Your task to perform on an android device: show emergency info Image 0: 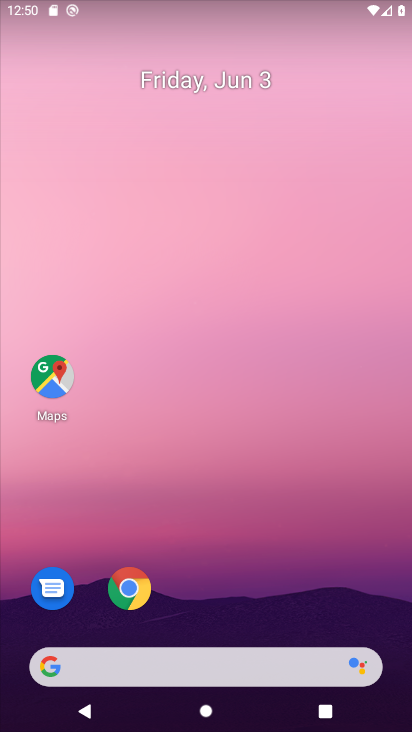
Step 0: drag from (257, 599) to (223, 163)
Your task to perform on an android device: show emergency info Image 1: 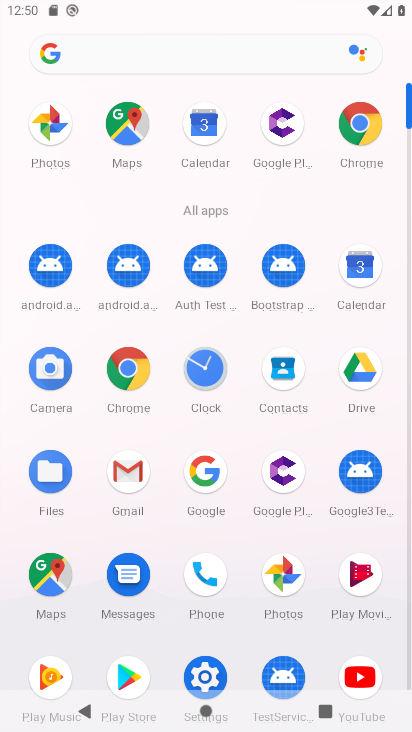
Step 1: click (201, 668)
Your task to perform on an android device: show emergency info Image 2: 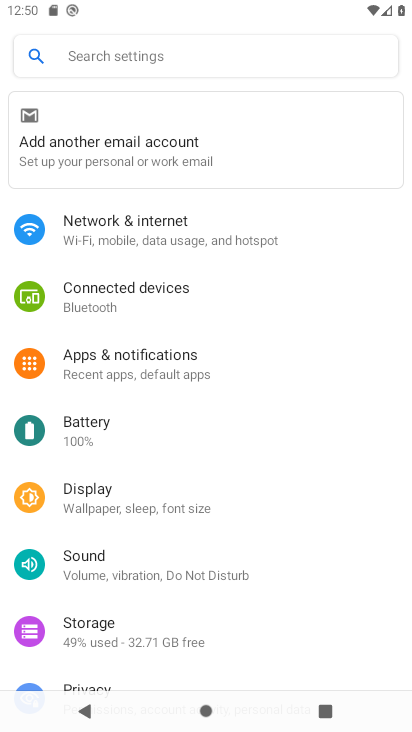
Step 2: drag from (240, 642) to (213, 167)
Your task to perform on an android device: show emergency info Image 3: 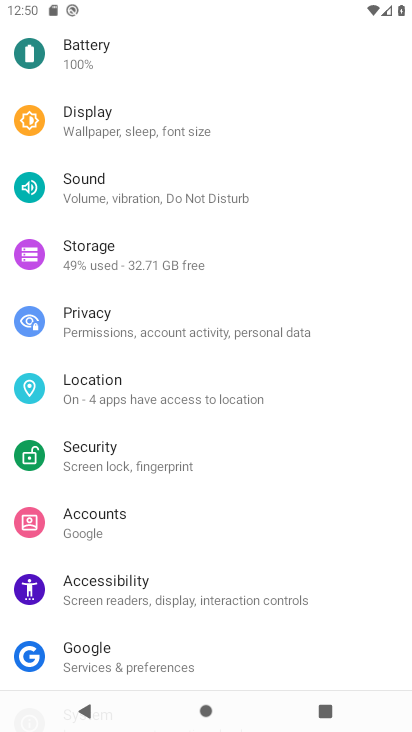
Step 3: drag from (211, 601) to (181, 278)
Your task to perform on an android device: show emergency info Image 4: 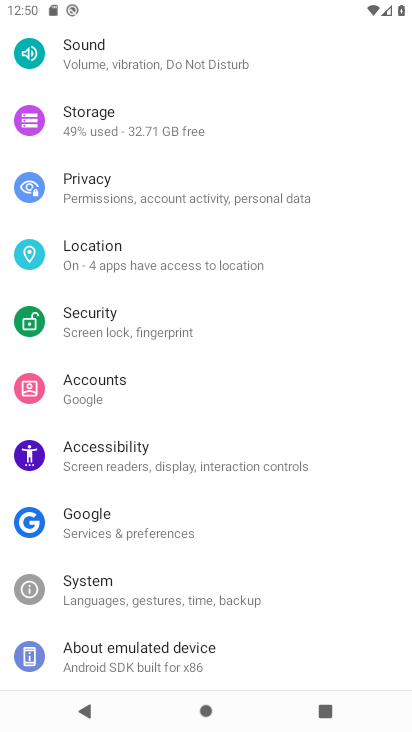
Step 4: drag from (200, 613) to (189, 368)
Your task to perform on an android device: show emergency info Image 5: 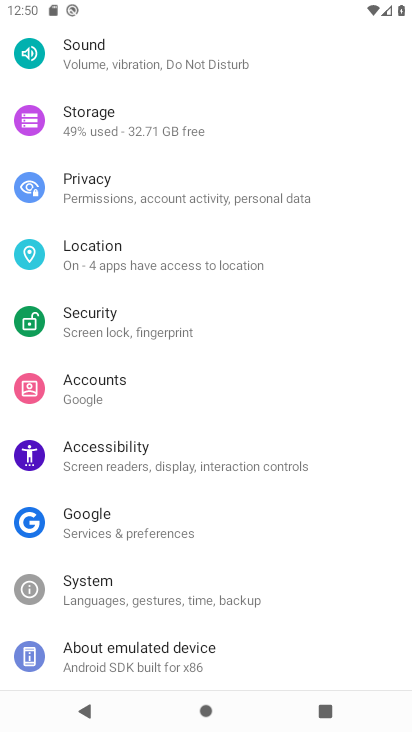
Step 5: click (179, 668)
Your task to perform on an android device: show emergency info Image 6: 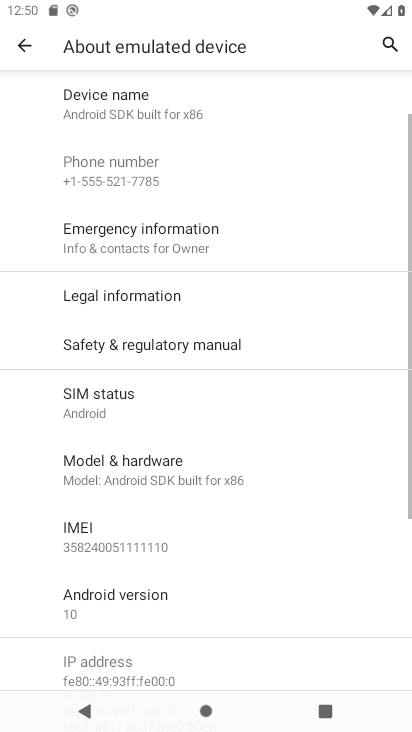
Step 6: click (181, 241)
Your task to perform on an android device: show emergency info Image 7: 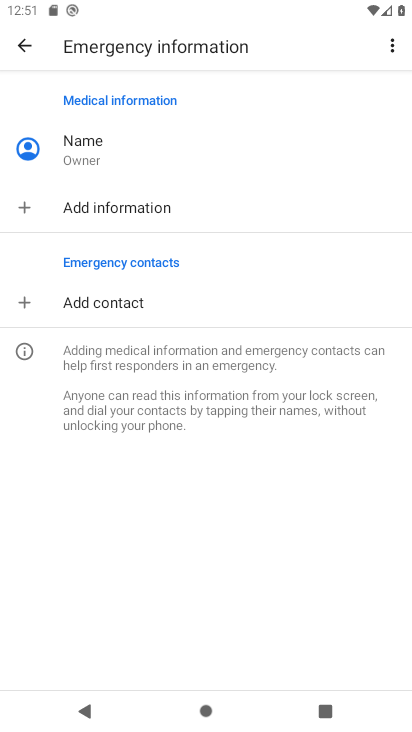
Step 7: task complete